Your task to perform on an android device: turn notification dots off Image 0: 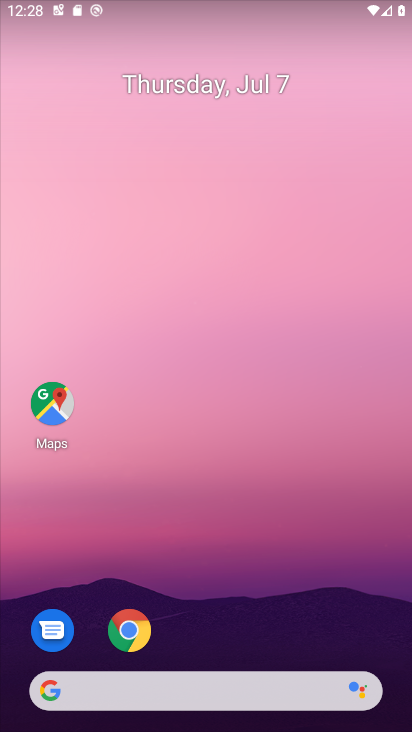
Step 0: drag from (226, 613) to (238, 227)
Your task to perform on an android device: turn notification dots off Image 1: 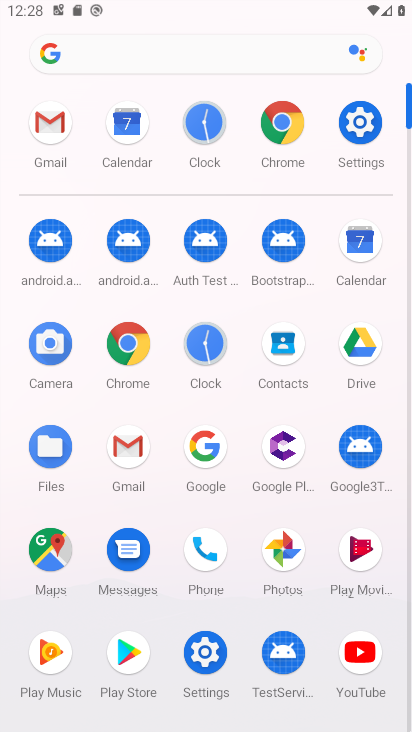
Step 1: click (358, 129)
Your task to perform on an android device: turn notification dots off Image 2: 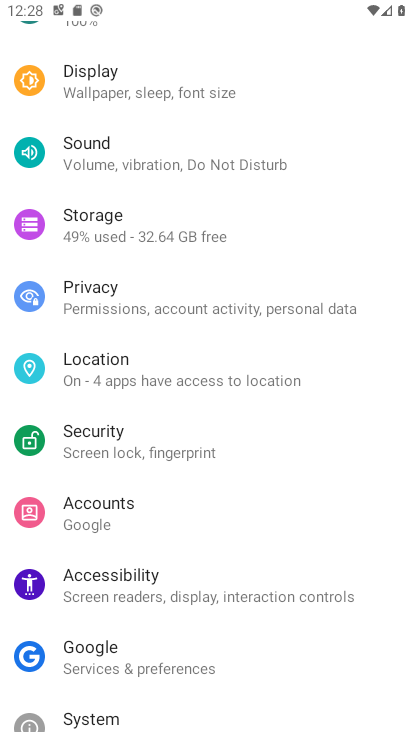
Step 2: drag from (250, 110) to (259, 486)
Your task to perform on an android device: turn notification dots off Image 3: 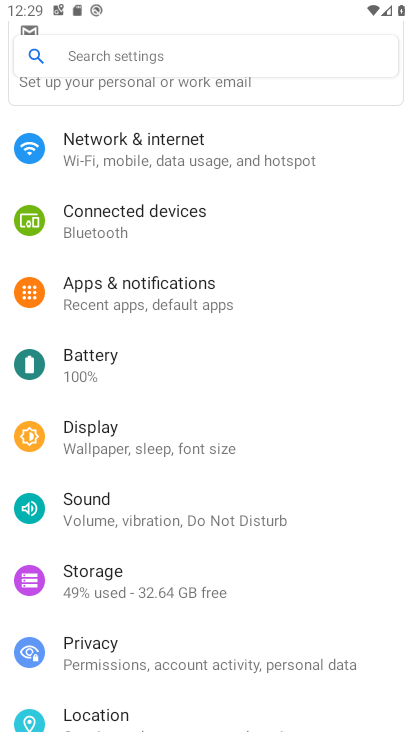
Step 3: click (190, 43)
Your task to perform on an android device: turn notification dots off Image 4: 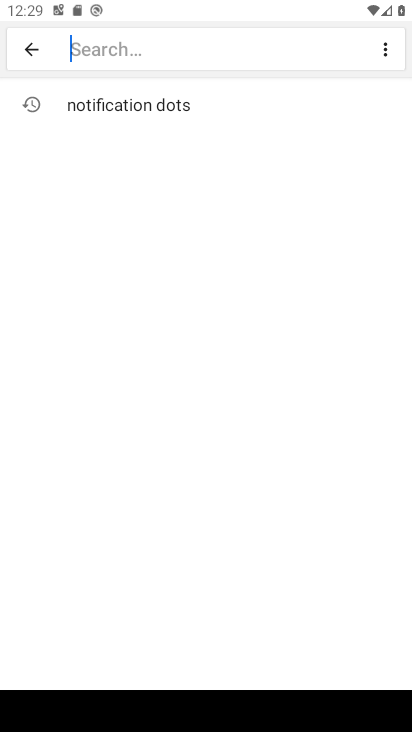
Step 4: type " notification dots "
Your task to perform on an android device: turn notification dots off Image 5: 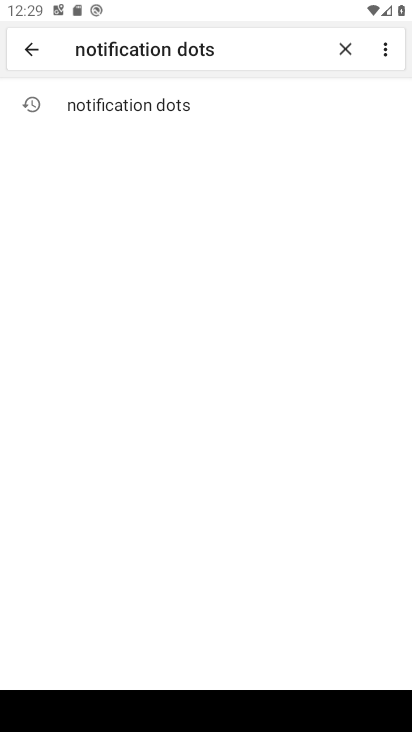
Step 5: click (213, 119)
Your task to perform on an android device: turn notification dots off Image 6: 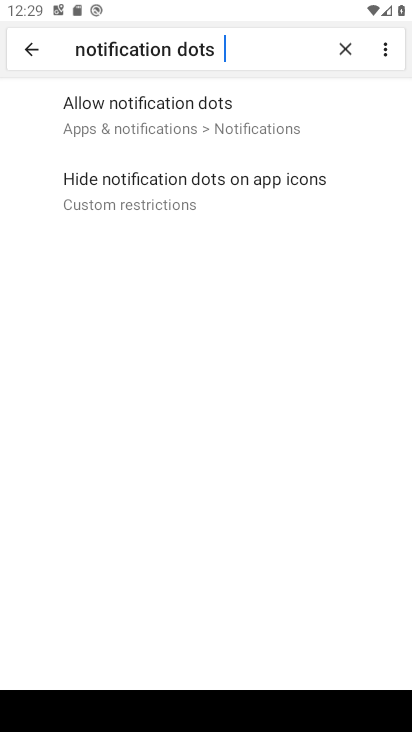
Step 6: click (213, 119)
Your task to perform on an android device: turn notification dots off Image 7: 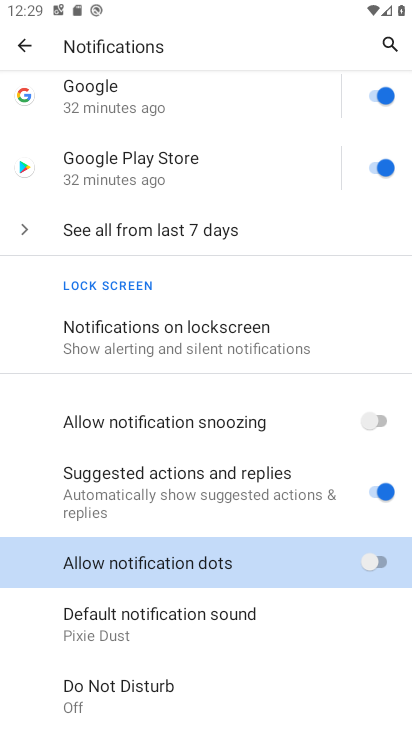
Step 7: task complete